Your task to perform on an android device: Open accessibility settings Image 0: 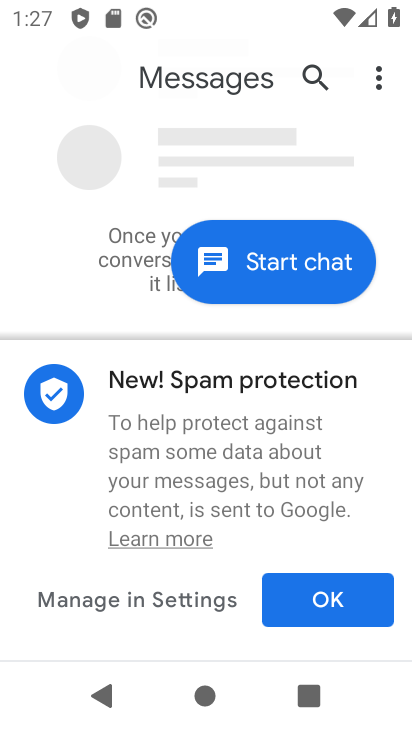
Step 0: press home button
Your task to perform on an android device: Open accessibility settings Image 1: 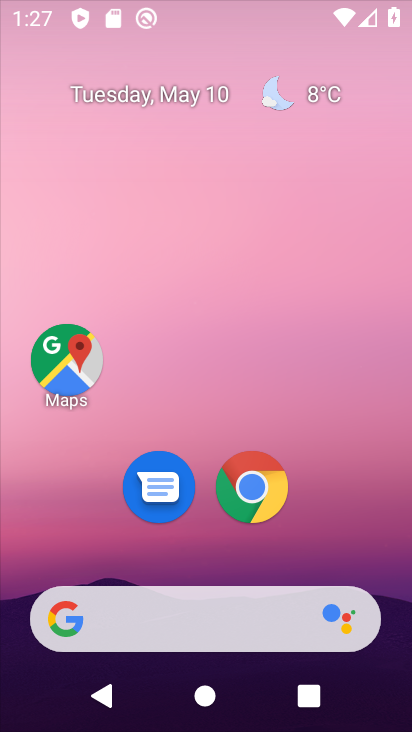
Step 1: drag from (354, 546) to (338, 101)
Your task to perform on an android device: Open accessibility settings Image 2: 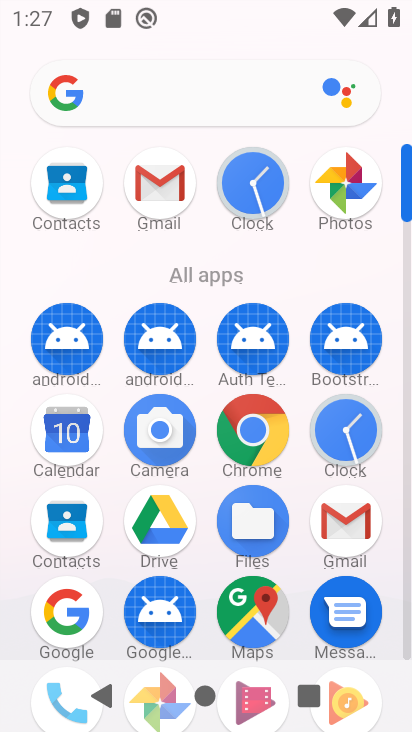
Step 2: drag from (316, 564) to (285, 158)
Your task to perform on an android device: Open accessibility settings Image 3: 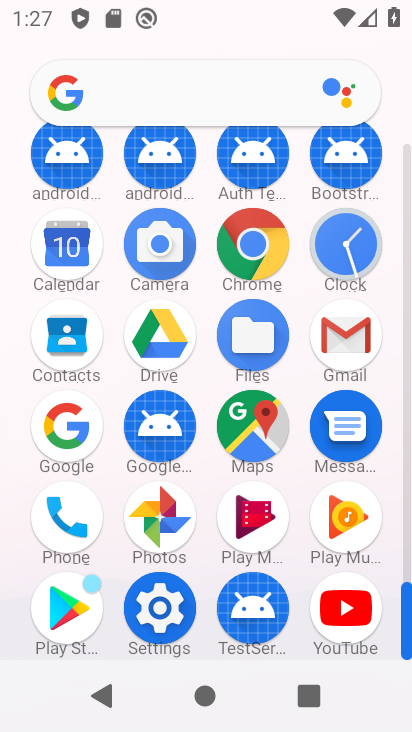
Step 3: click (173, 613)
Your task to perform on an android device: Open accessibility settings Image 4: 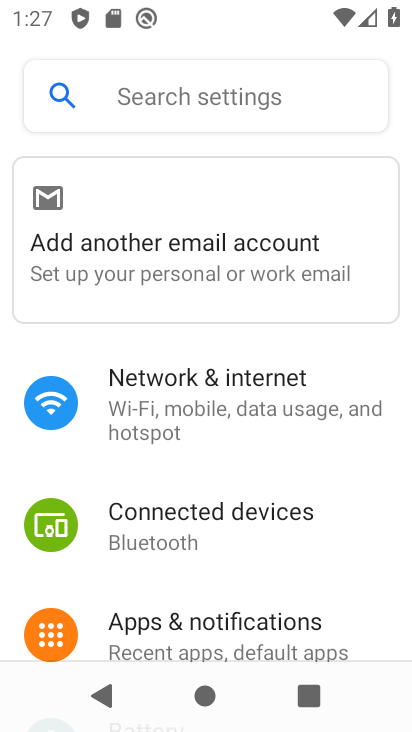
Step 4: drag from (272, 591) to (251, 76)
Your task to perform on an android device: Open accessibility settings Image 5: 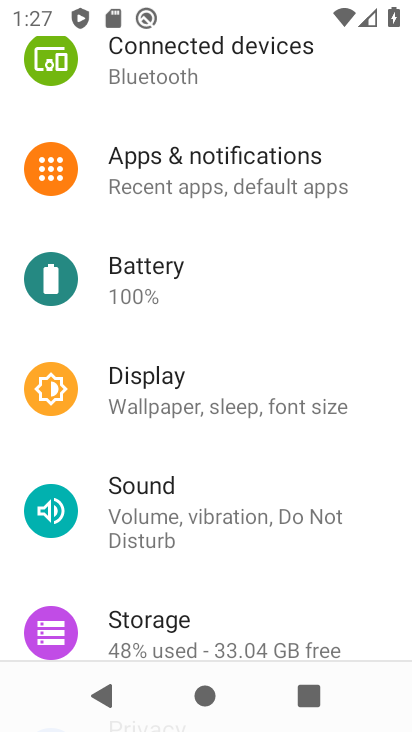
Step 5: drag from (236, 641) to (240, 166)
Your task to perform on an android device: Open accessibility settings Image 6: 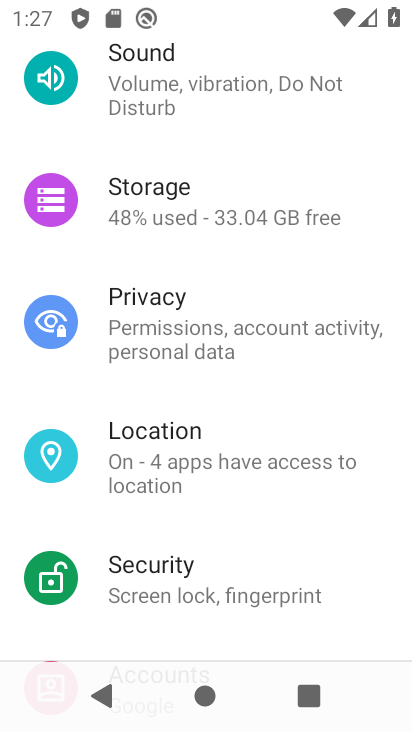
Step 6: drag from (243, 566) to (253, 186)
Your task to perform on an android device: Open accessibility settings Image 7: 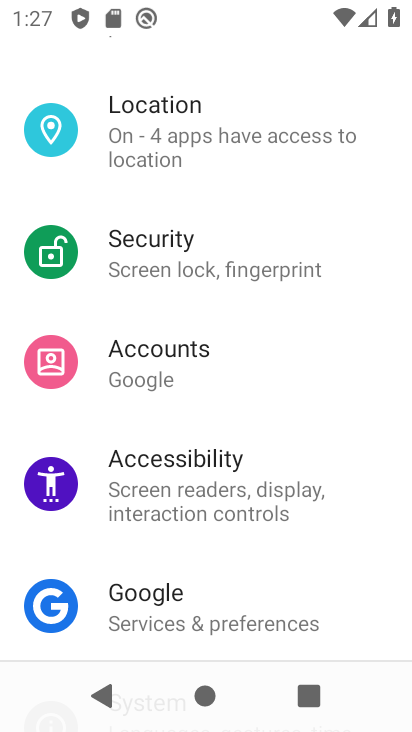
Step 7: drag from (231, 590) to (245, 214)
Your task to perform on an android device: Open accessibility settings Image 8: 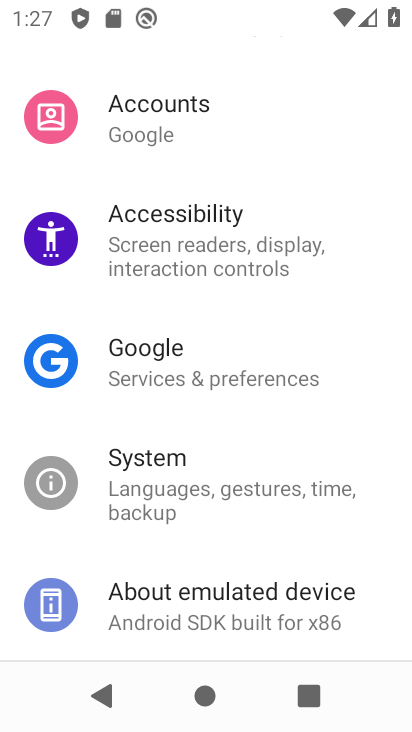
Step 8: drag from (256, 596) to (267, 302)
Your task to perform on an android device: Open accessibility settings Image 9: 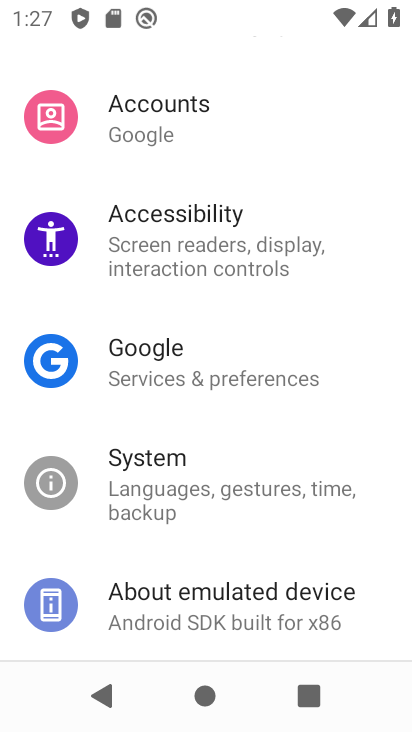
Step 9: click (242, 244)
Your task to perform on an android device: Open accessibility settings Image 10: 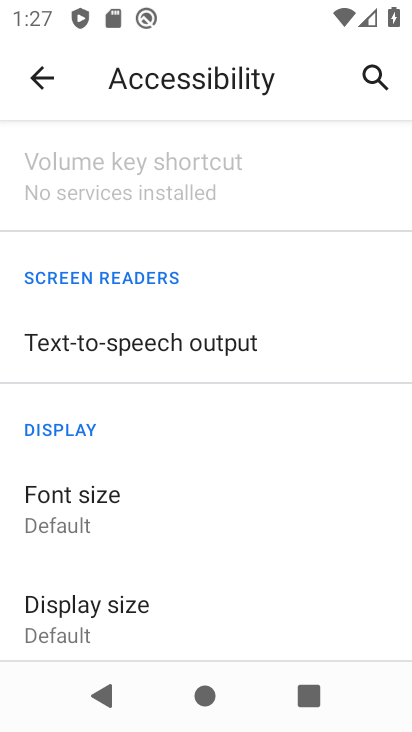
Step 10: task complete